Your task to perform on an android device: Go to accessibility settings Image 0: 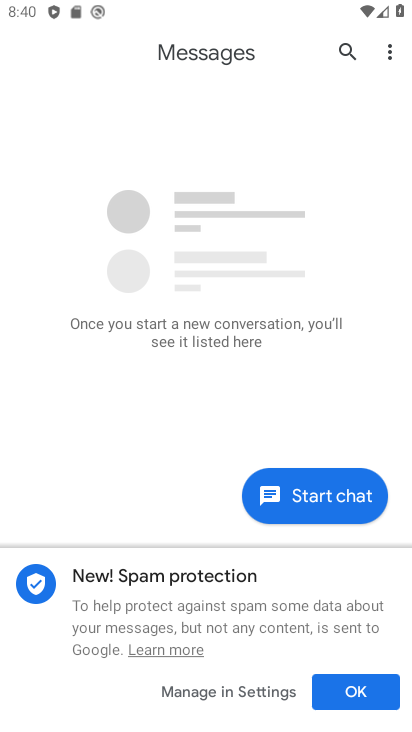
Step 0: press home button
Your task to perform on an android device: Go to accessibility settings Image 1: 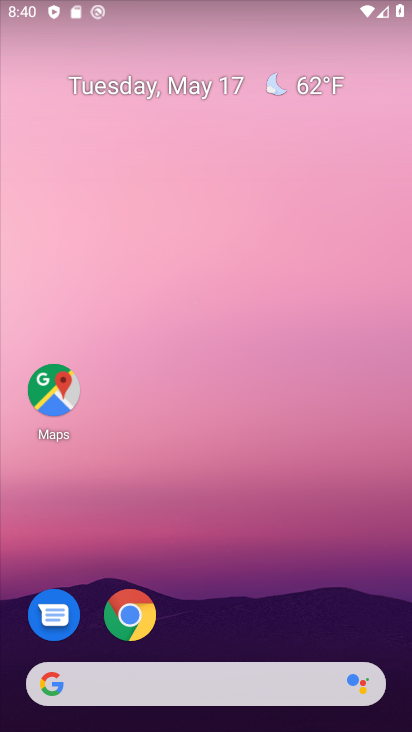
Step 1: drag from (311, 653) to (324, 156)
Your task to perform on an android device: Go to accessibility settings Image 2: 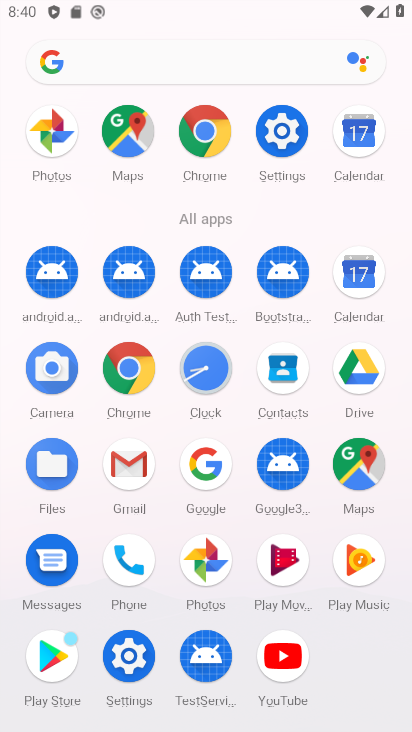
Step 2: click (289, 130)
Your task to perform on an android device: Go to accessibility settings Image 3: 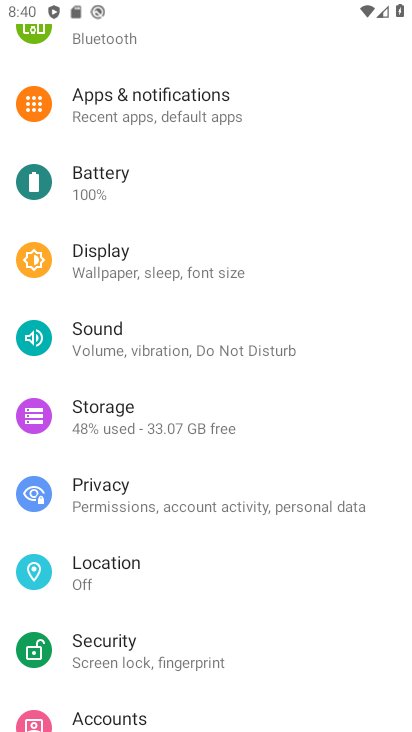
Step 3: drag from (257, 651) to (255, 146)
Your task to perform on an android device: Go to accessibility settings Image 4: 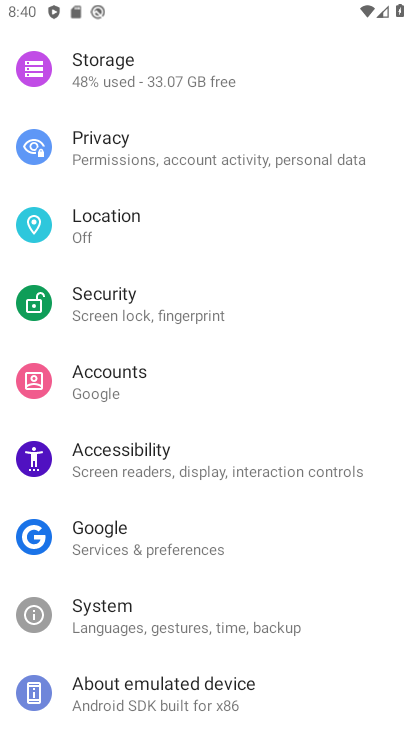
Step 4: click (147, 448)
Your task to perform on an android device: Go to accessibility settings Image 5: 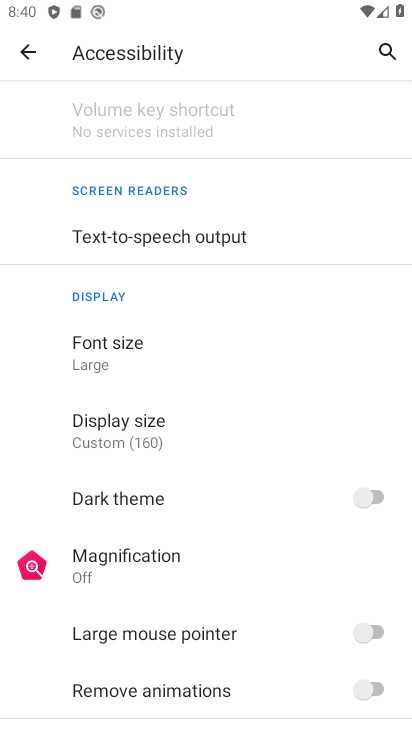
Step 5: task complete